Your task to perform on an android device: Go to sound settings Image 0: 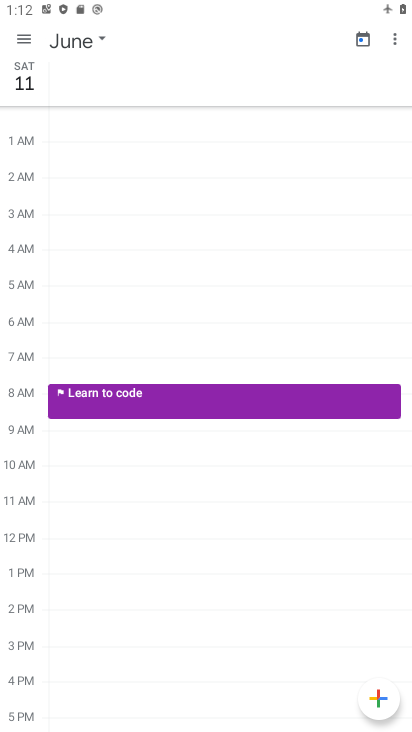
Step 0: press home button
Your task to perform on an android device: Go to sound settings Image 1: 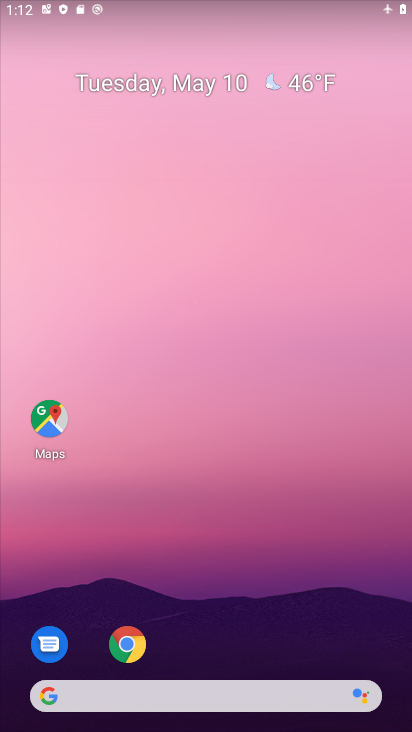
Step 1: drag from (270, 592) to (287, 285)
Your task to perform on an android device: Go to sound settings Image 2: 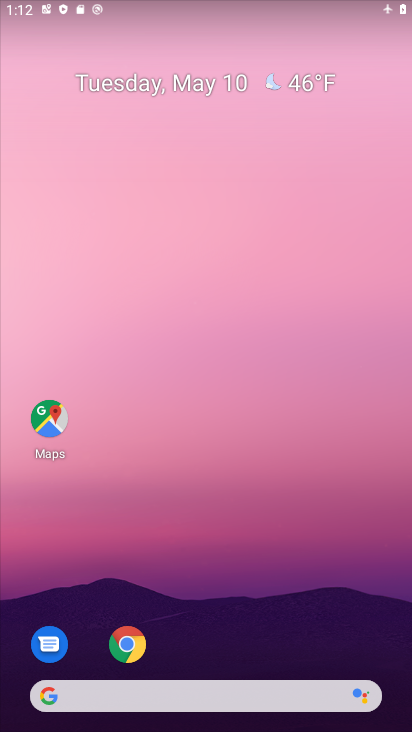
Step 2: drag from (252, 629) to (314, 242)
Your task to perform on an android device: Go to sound settings Image 3: 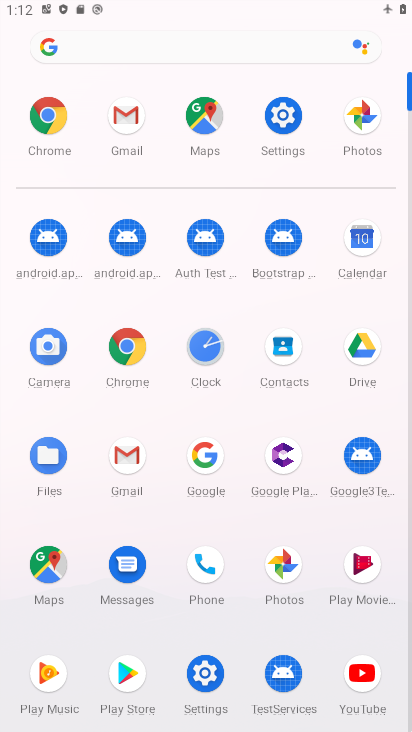
Step 3: click (285, 129)
Your task to perform on an android device: Go to sound settings Image 4: 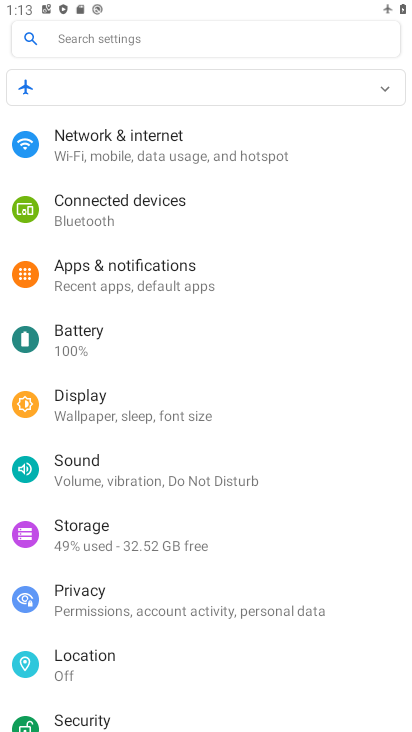
Step 4: click (137, 479)
Your task to perform on an android device: Go to sound settings Image 5: 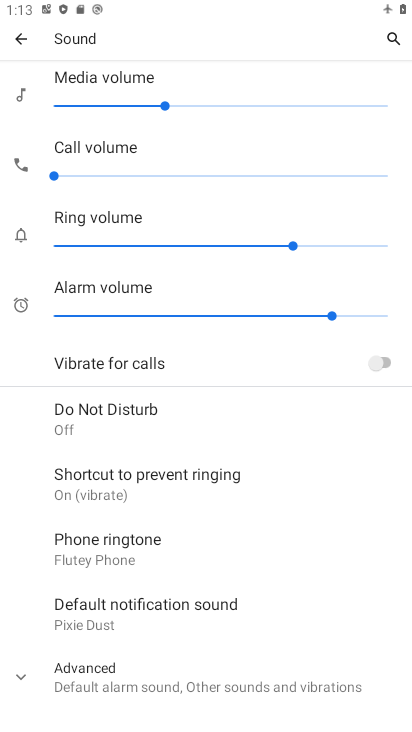
Step 5: task complete